Your task to perform on an android device: Open calendar and show me the first week of next month Image 0: 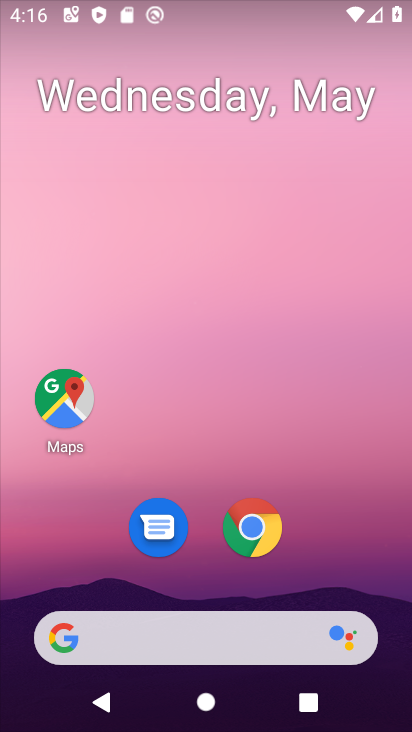
Step 0: drag from (365, 550) to (359, 8)
Your task to perform on an android device: Open calendar and show me the first week of next month Image 1: 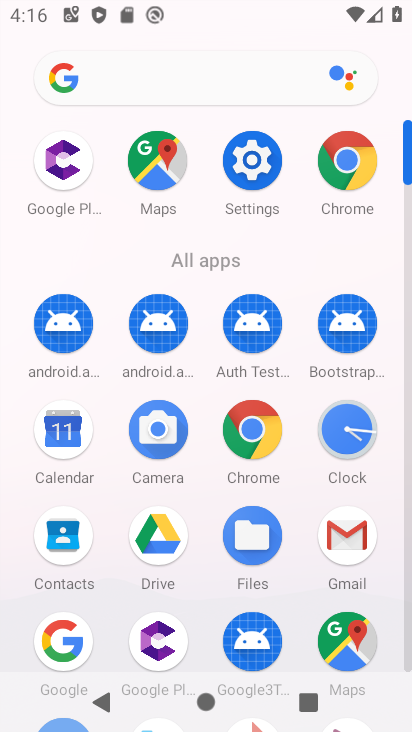
Step 1: click (78, 428)
Your task to perform on an android device: Open calendar and show me the first week of next month Image 2: 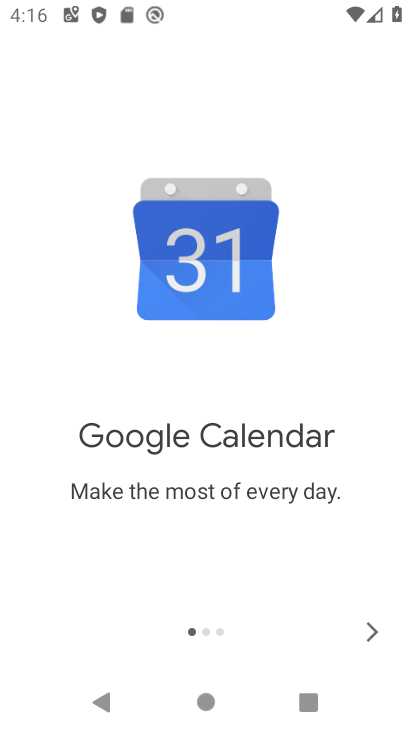
Step 2: click (371, 639)
Your task to perform on an android device: Open calendar and show me the first week of next month Image 3: 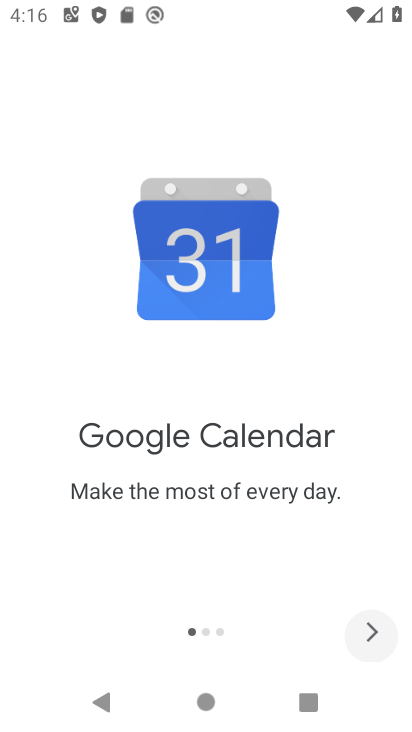
Step 3: click (371, 639)
Your task to perform on an android device: Open calendar and show me the first week of next month Image 4: 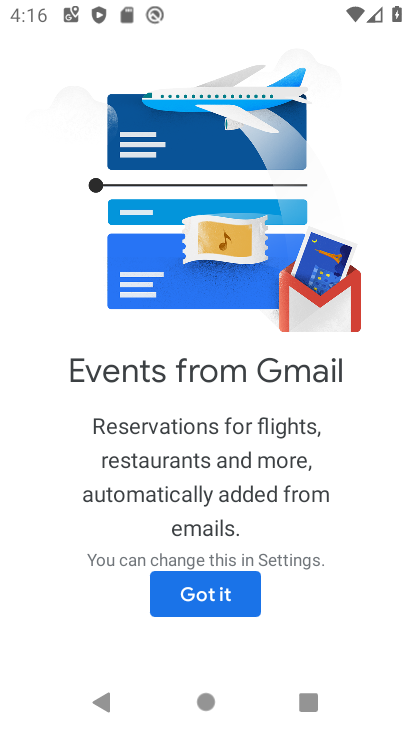
Step 4: click (220, 622)
Your task to perform on an android device: Open calendar and show me the first week of next month Image 5: 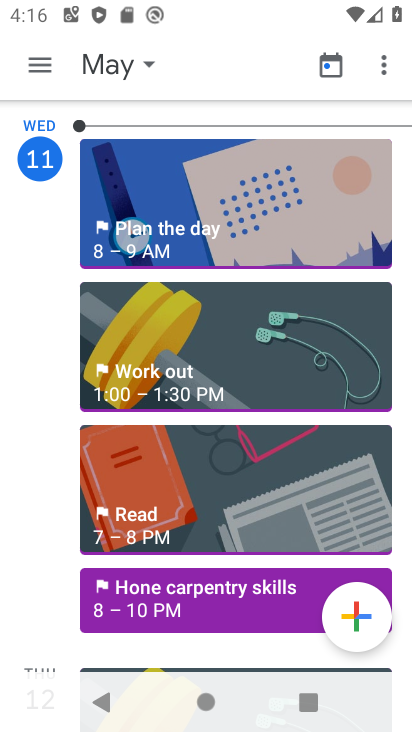
Step 5: click (117, 57)
Your task to perform on an android device: Open calendar and show me the first week of next month Image 6: 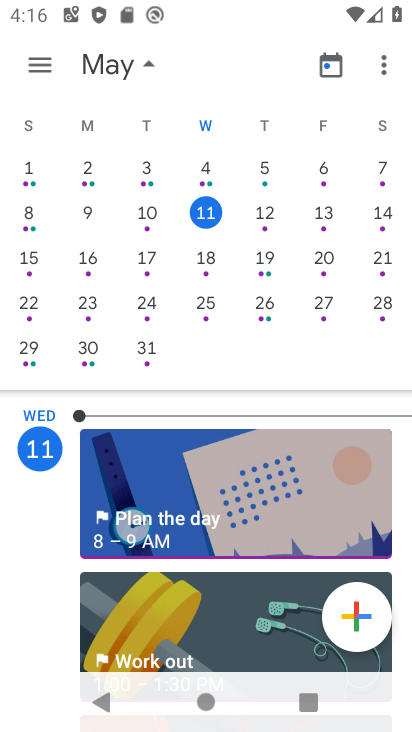
Step 6: task complete